Your task to perform on an android device: Show me productivity apps on the Play Store Image 0: 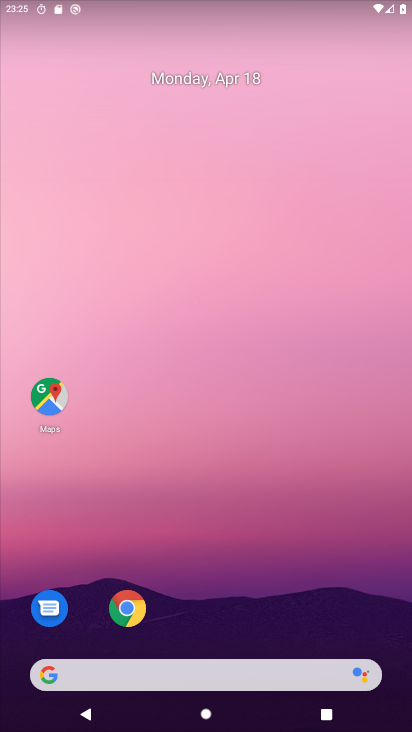
Step 0: drag from (211, 476) to (205, 155)
Your task to perform on an android device: Show me productivity apps on the Play Store Image 1: 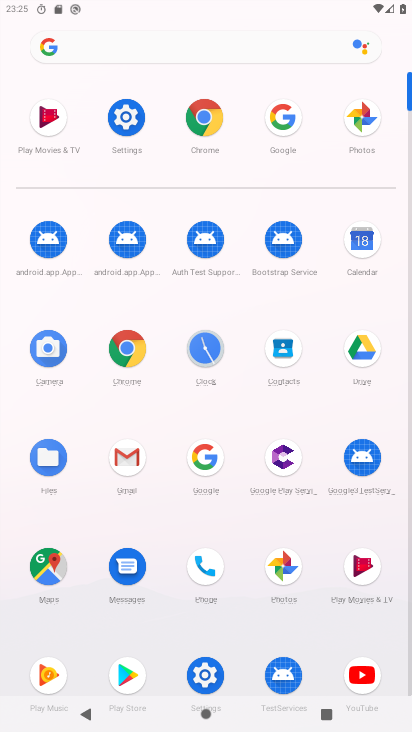
Step 1: click (124, 669)
Your task to perform on an android device: Show me productivity apps on the Play Store Image 2: 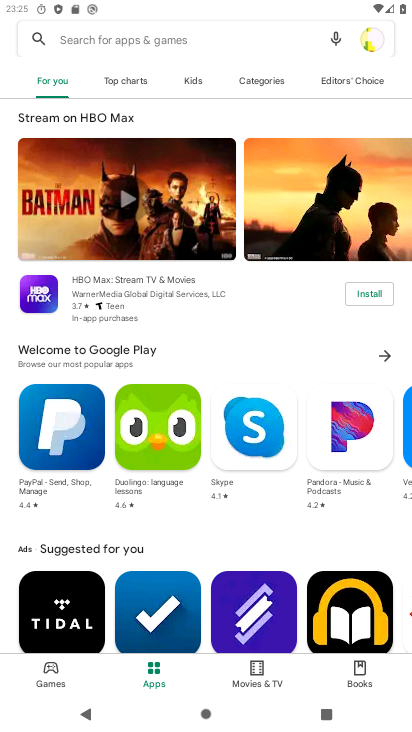
Step 2: click (128, 79)
Your task to perform on an android device: Show me productivity apps on the Play Store Image 3: 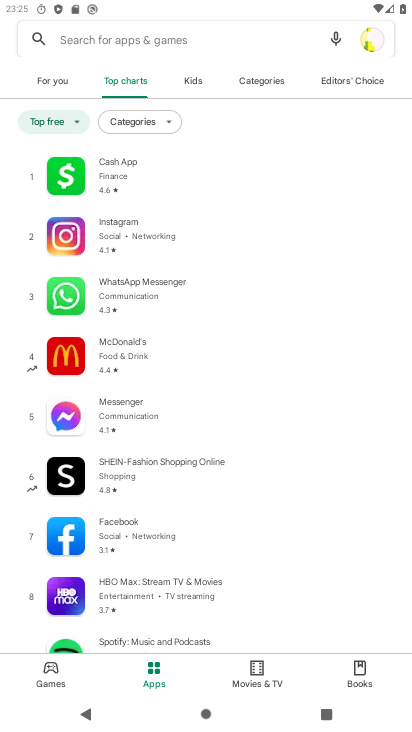
Step 3: task complete